Your task to perform on an android device: make emails show in primary in the gmail app Image 0: 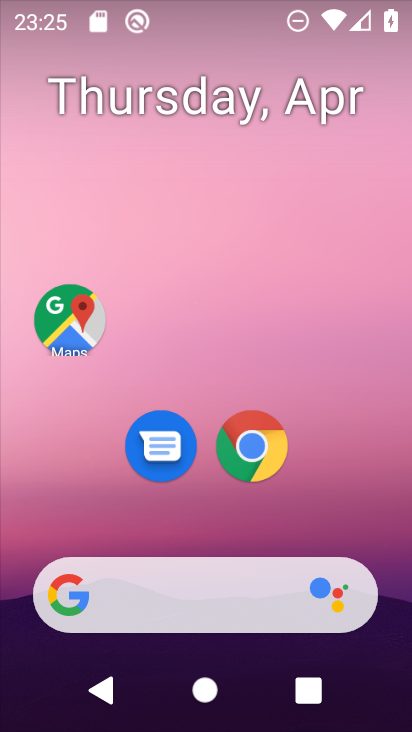
Step 0: click (194, 71)
Your task to perform on an android device: make emails show in primary in the gmail app Image 1: 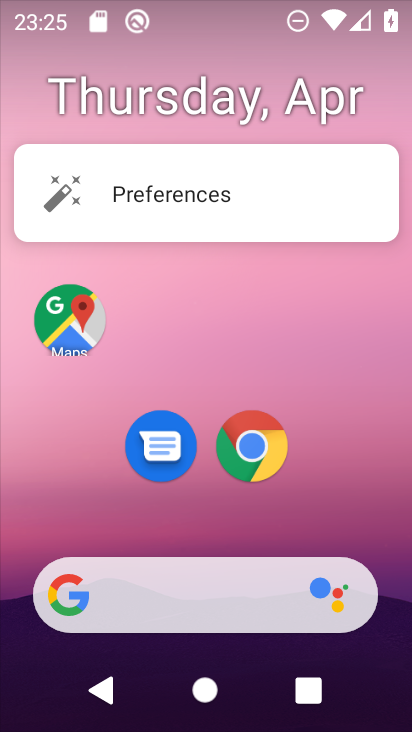
Step 1: drag from (195, 398) to (195, 253)
Your task to perform on an android device: make emails show in primary in the gmail app Image 2: 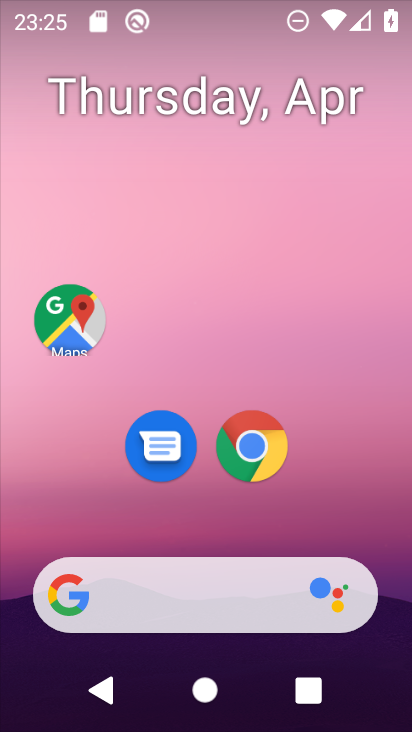
Step 2: drag from (199, 528) to (218, 66)
Your task to perform on an android device: make emails show in primary in the gmail app Image 3: 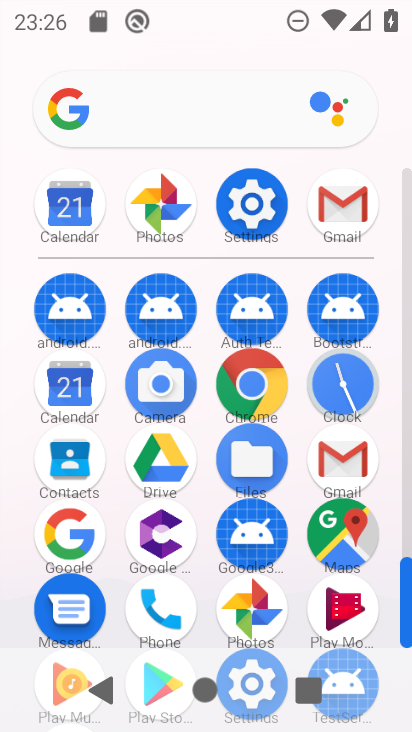
Step 3: click (329, 439)
Your task to perform on an android device: make emails show in primary in the gmail app Image 4: 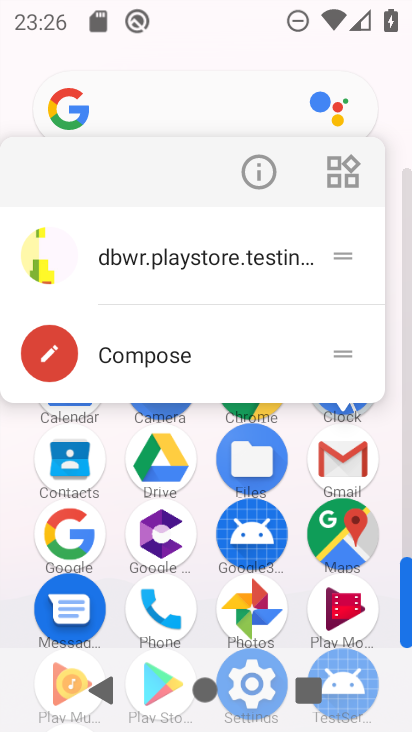
Step 4: click (251, 164)
Your task to perform on an android device: make emails show in primary in the gmail app Image 5: 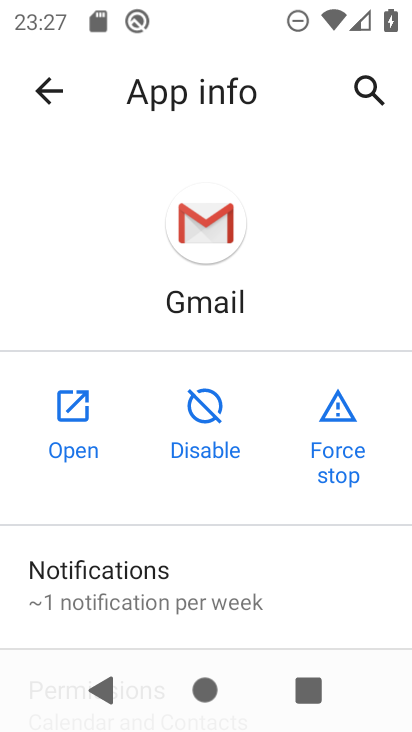
Step 5: click (77, 422)
Your task to perform on an android device: make emails show in primary in the gmail app Image 6: 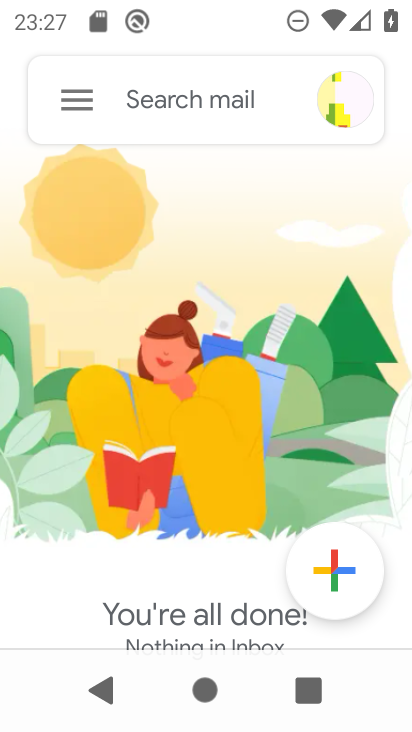
Step 6: click (78, 90)
Your task to perform on an android device: make emails show in primary in the gmail app Image 7: 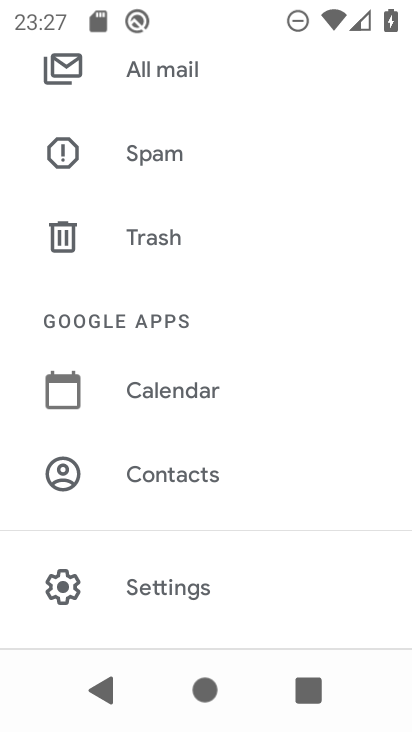
Step 7: drag from (175, 514) to (200, 202)
Your task to perform on an android device: make emails show in primary in the gmail app Image 8: 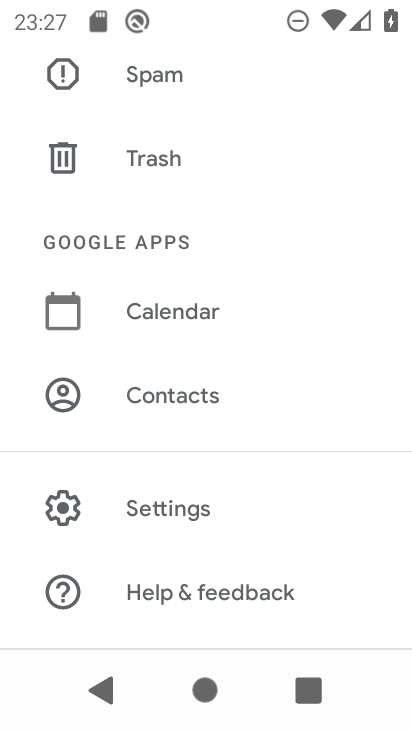
Step 8: drag from (230, 124) to (270, 709)
Your task to perform on an android device: make emails show in primary in the gmail app Image 9: 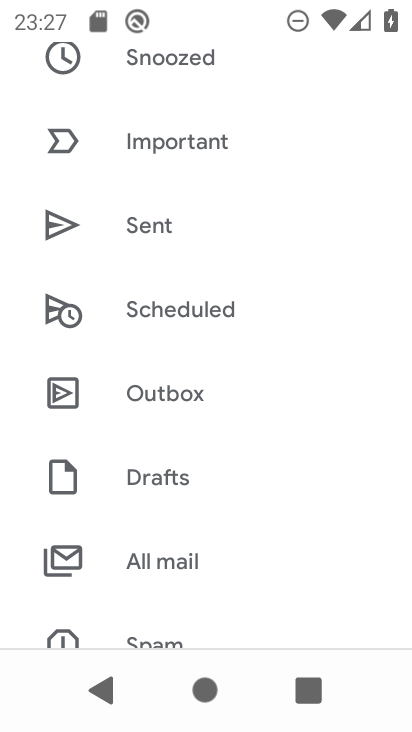
Step 9: drag from (221, 169) to (294, 653)
Your task to perform on an android device: make emails show in primary in the gmail app Image 10: 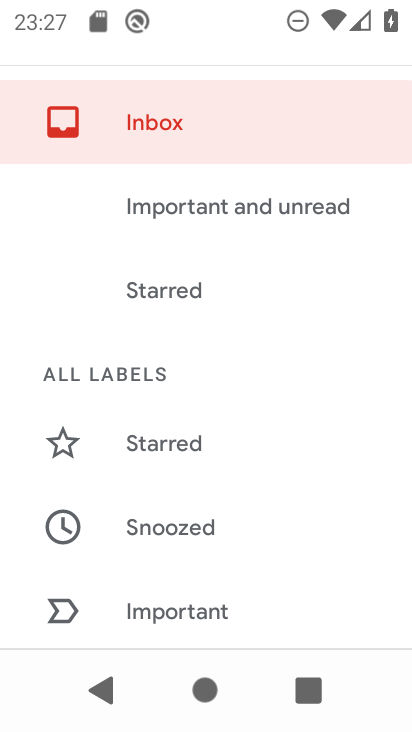
Step 10: drag from (210, 152) to (233, 579)
Your task to perform on an android device: make emails show in primary in the gmail app Image 11: 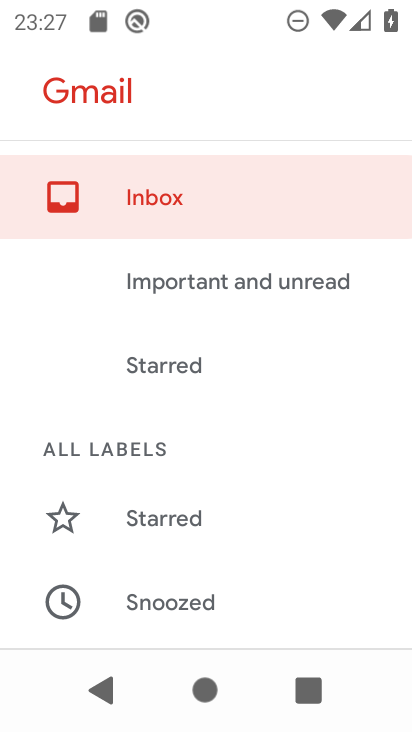
Step 11: click (168, 202)
Your task to perform on an android device: make emails show in primary in the gmail app Image 12: 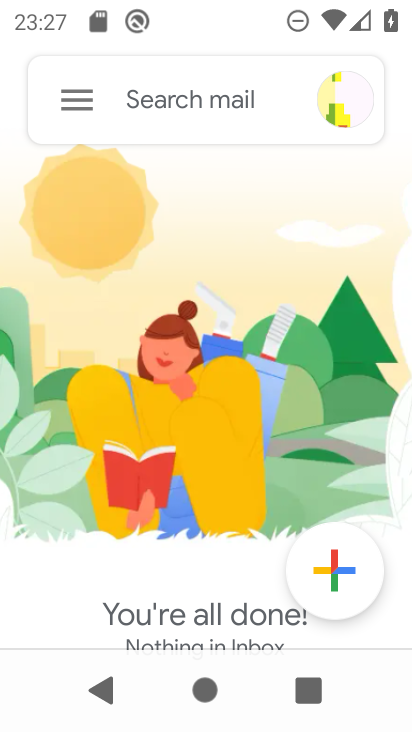
Step 12: drag from (227, 366) to (223, 171)
Your task to perform on an android device: make emails show in primary in the gmail app Image 13: 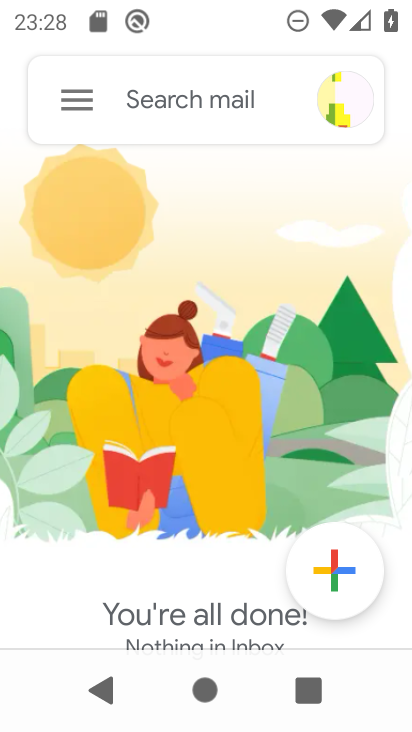
Step 13: drag from (206, 493) to (241, 165)
Your task to perform on an android device: make emails show in primary in the gmail app Image 14: 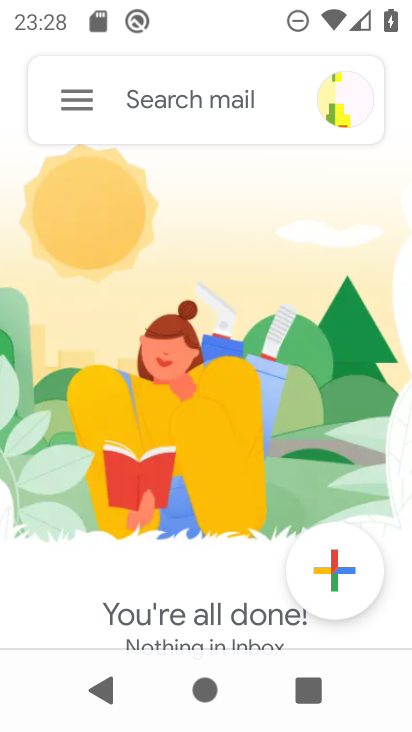
Step 14: click (73, 104)
Your task to perform on an android device: make emails show in primary in the gmail app Image 15: 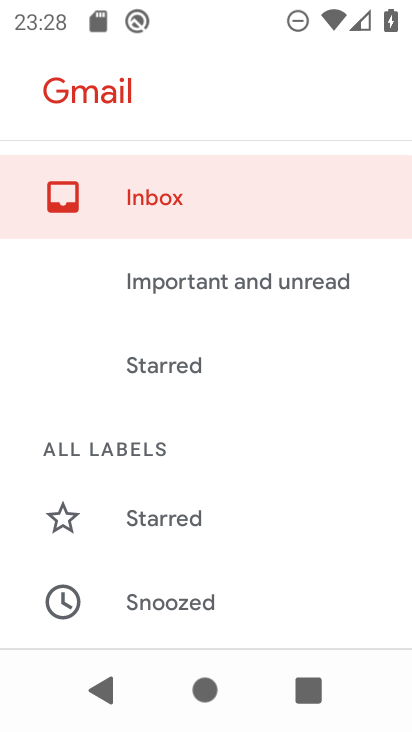
Step 15: task complete